Your task to perform on an android device: turn off picture-in-picture Image 0: 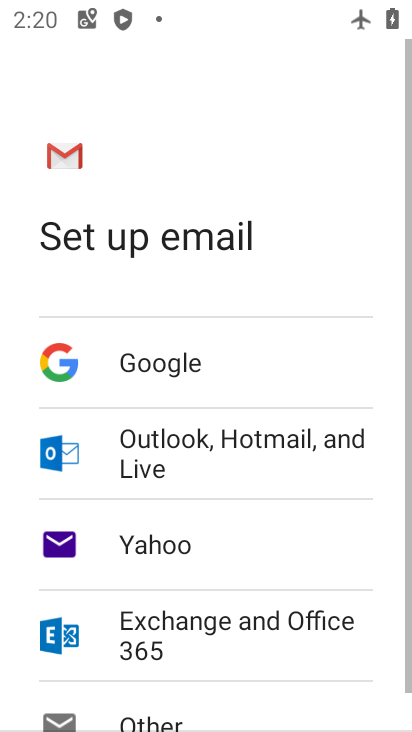
Step 0: press home button
Your task to perform on an android device: turn off picture-in-picture Image 1: 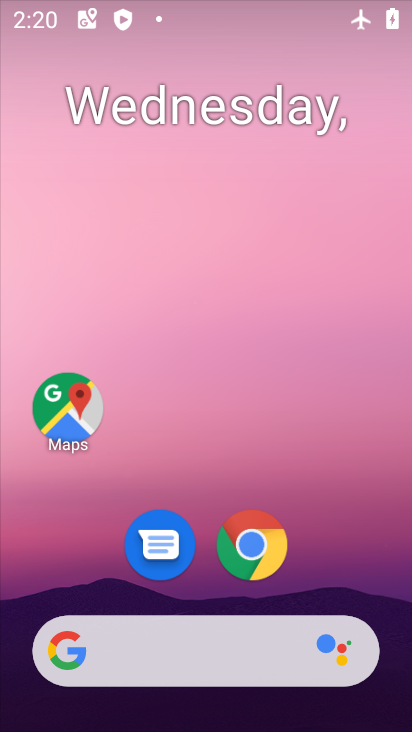
Step 1: drag from (329, 523) to (296, 581)
Your task to perform on an android device: turn off picture-in-picture Image 2: 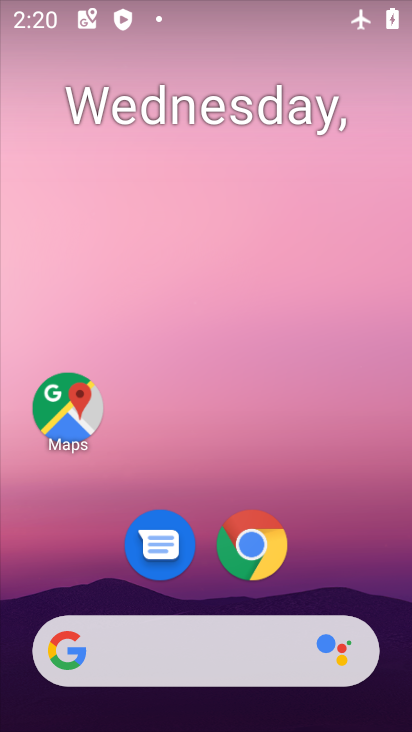
Step 2: click (260, 550)
Your task to perform on an android device: turn off picture-in-picture Image 3: 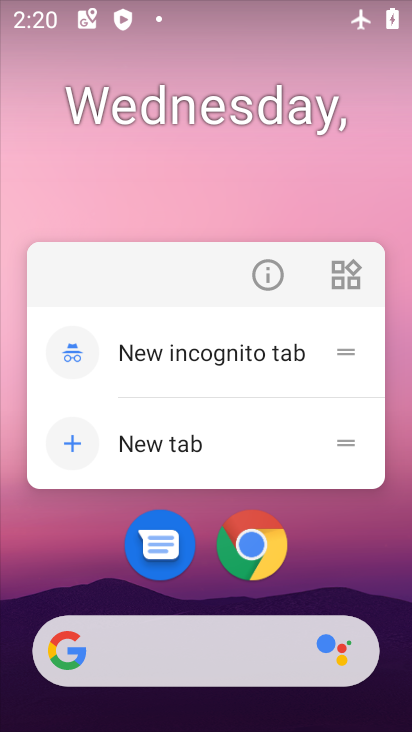
Step 3: click (277, 281)
Your task to perform on an android device: turn off picture-in-picture Image 4: 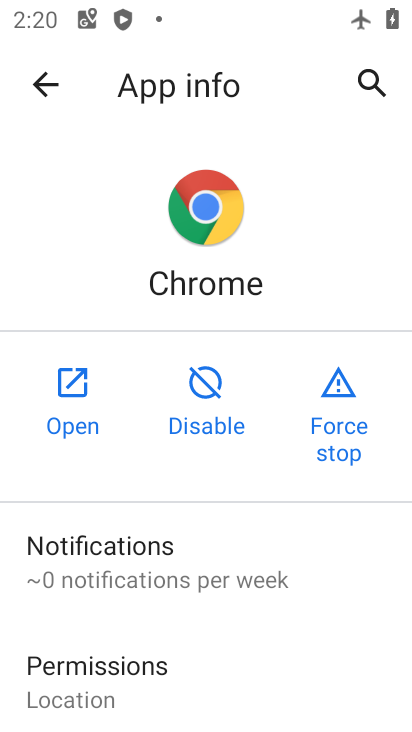
Step 4: drag from (220, 547) to (181, 1)
Your task to perform on an android device: turn off picture-in-picture Image 5: 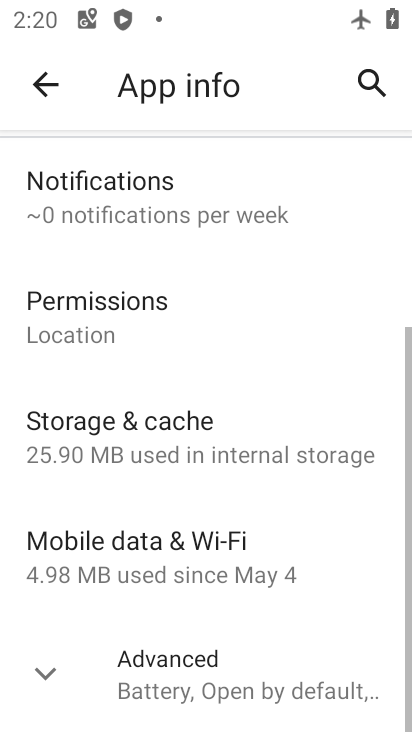
Step 5: click (160, 679)
Your task to perform on an android device: turn off picture-in-picture Image 6: 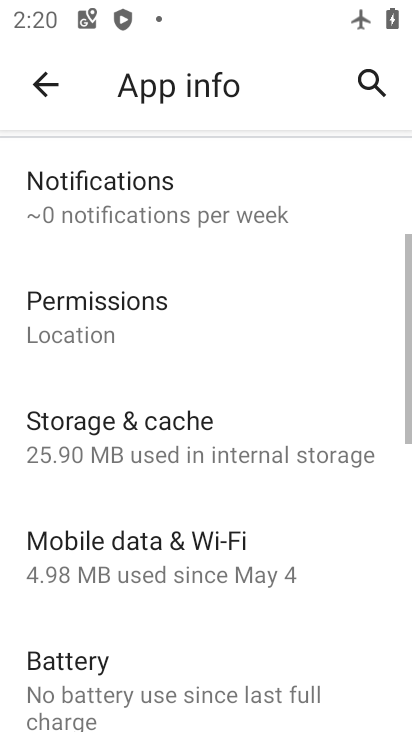
Step 6: drag from (231, 624) to (285, 128)
Your task to perform on an android device: turn off picture-in-picture Image 7: 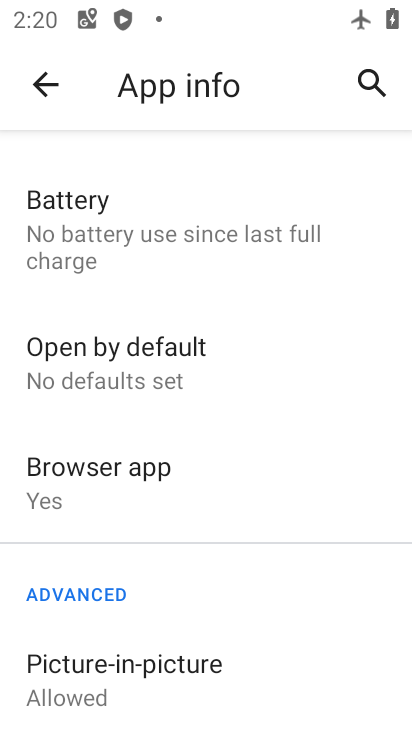
Step 7: drag from (217, 521) to (246, 157)
Your task to perform on an android device: turn off picture-in-picture Image 8: 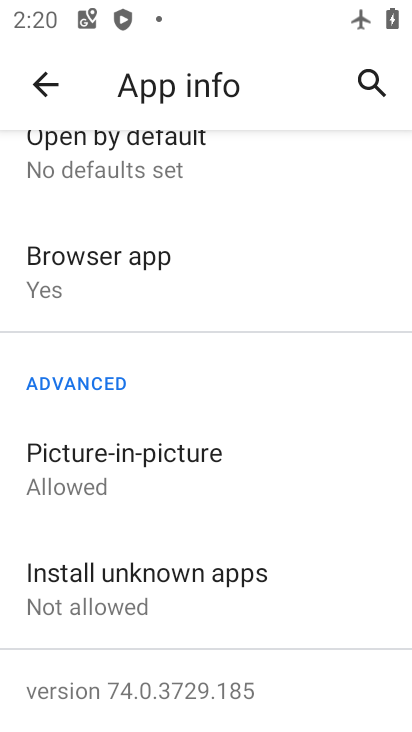
Step 8: click (162, 453)
Your task to perform on an android device: turn off picture-in-picture Image 9: 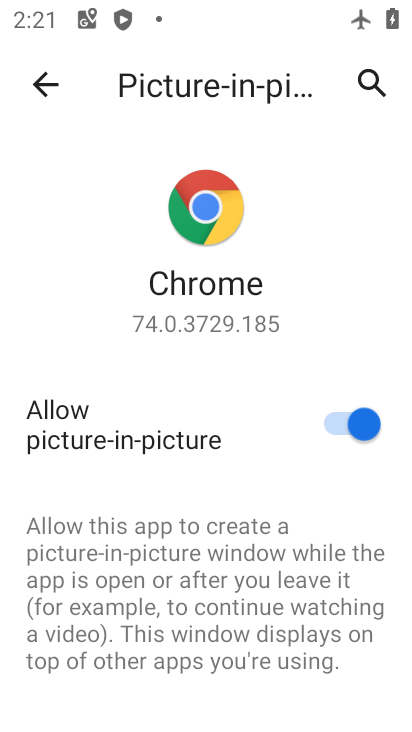
Step 9: click (342, 414)
Your task to perform on an android device: turn off picture-in-picture Image 10: 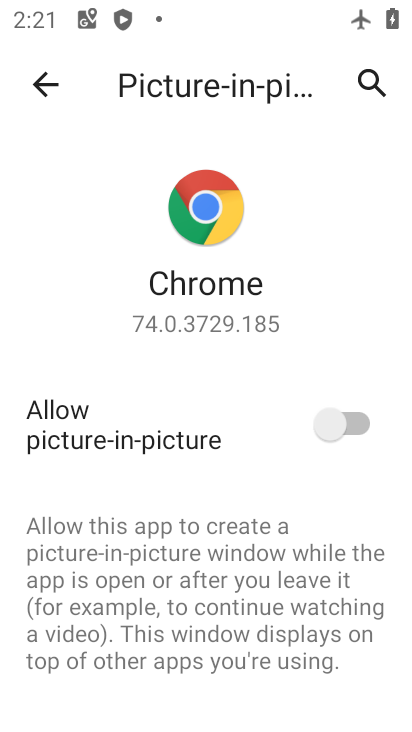
Step 10: task complete